Your task to perform on an android device: What's the weather today? Image 0: 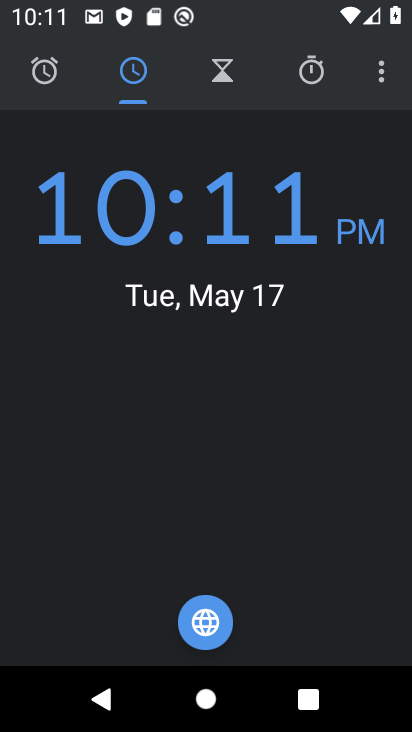
Step 0: press home button
Your task to perform on an android device: What's the weather today? Image 1: 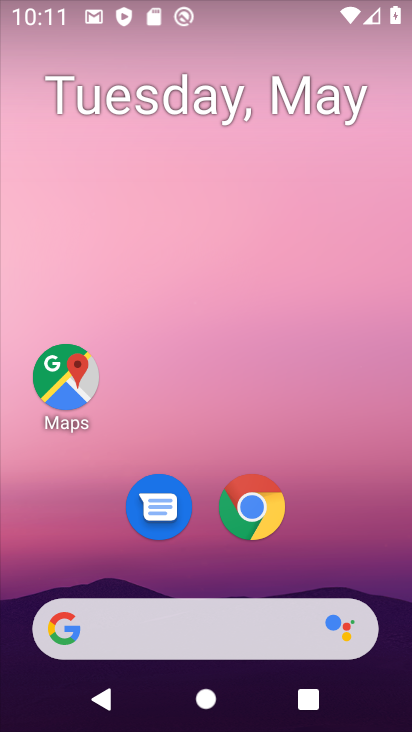
Step 1: drag from (288, 449) to (191, 88)
Your task to perform on an android device: What's the weather today? Image 2: 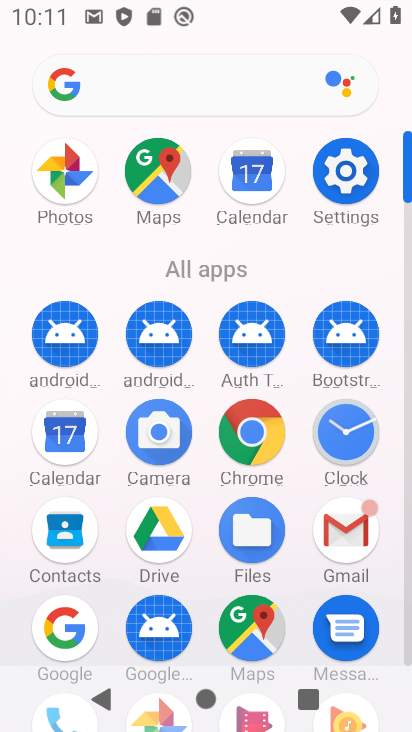
Step 2: click (66, 625)
Your task to perform on an android device: What's the weather today? Image 3: 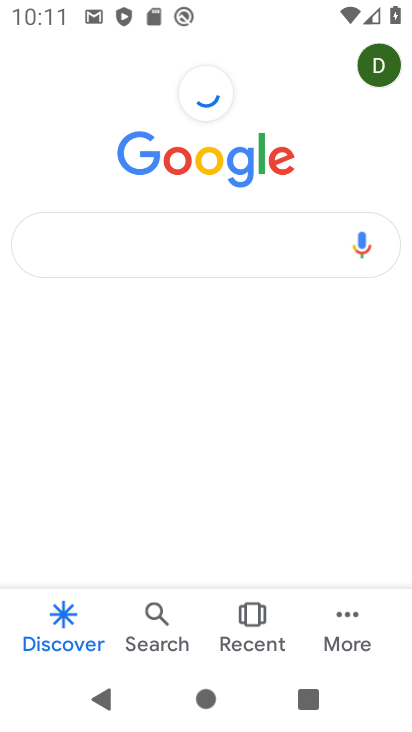
Step 3: click (109, 219)
Your task to perform on an android device: What's the weather today? Image 4: 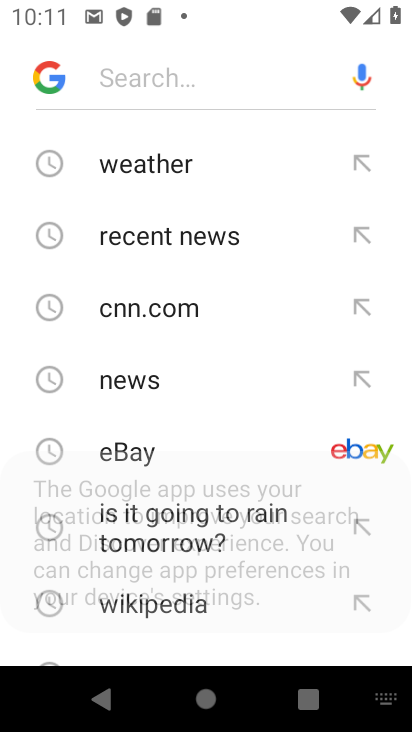
Step 4: click (161, 157)
Your task to perform on an android device: What's the weather today? Image 5: 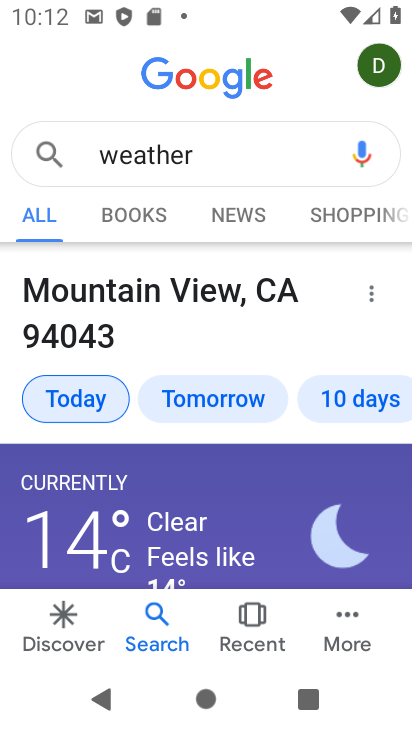
Step 5: task complete